Your task to perform on an android device: turn off airplane mode Image 0: 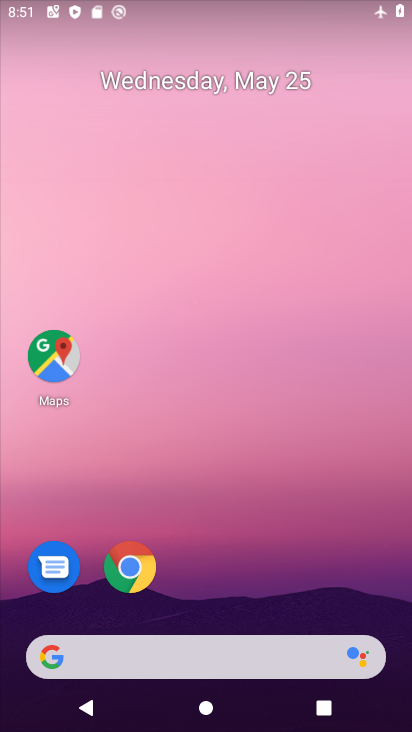
Step 0: drag from (263, 552) to (274, 44)
Your task to perform on an android device: turn off airplane mode Image 1: 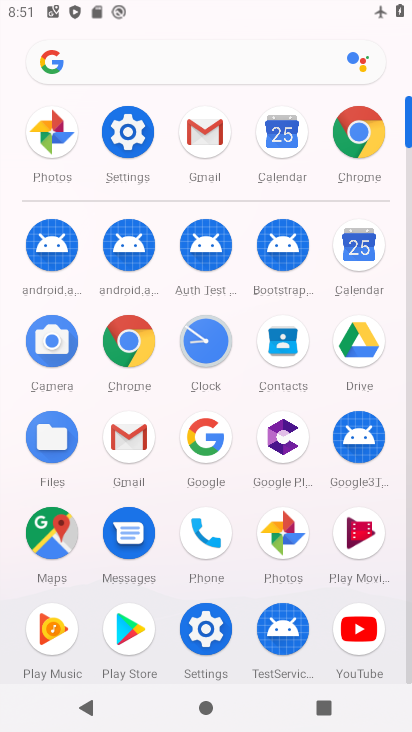
Step 1: click (124, 123)
Your task to perform on an android device: turn off airplane mode Image 2: 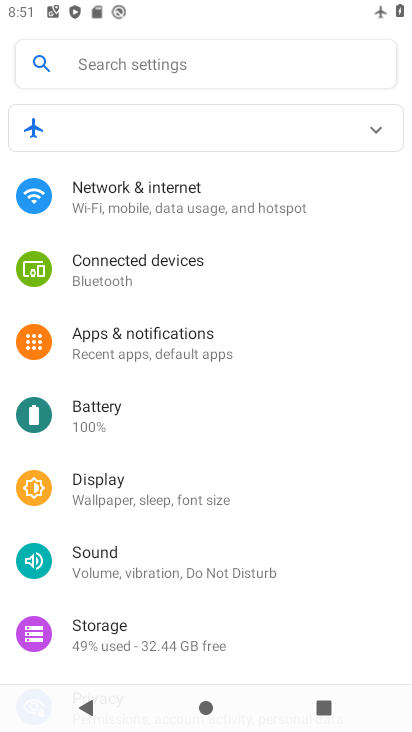
Step 2: click (127, 182)
Your task to perform on an android device: turn off airplane mode Image 3: 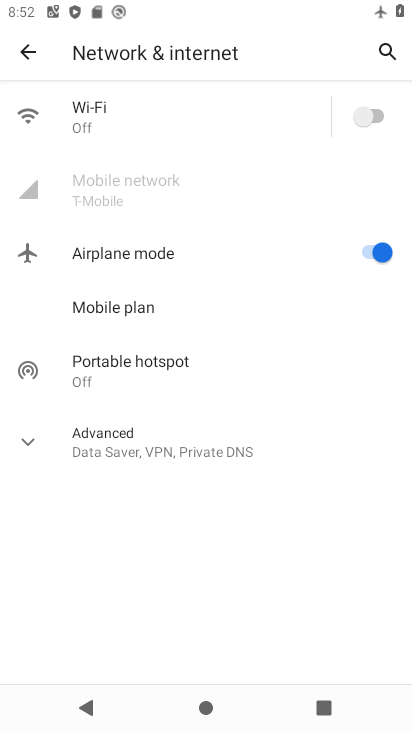
Step 3: click (369, 248)
Your task to perform on an android device: turn off airplane mode Image 4: 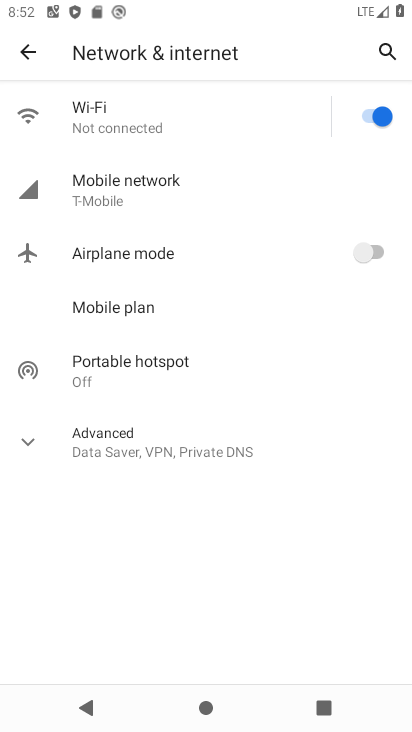
Step 4: task complete